Your task to perform on an android device: turn off smart reply in the gmail app Image 0: 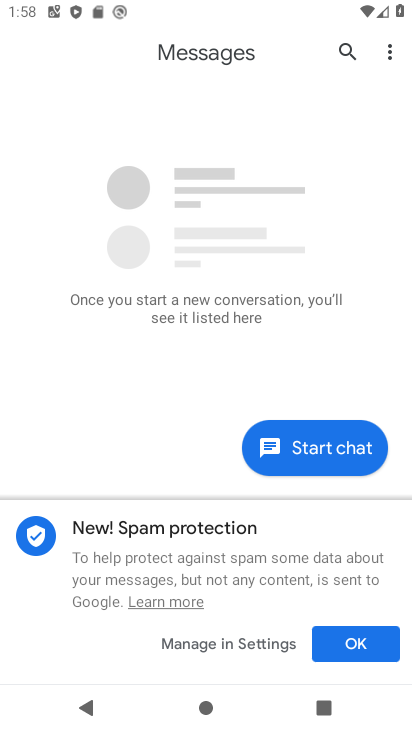
Step 0: press home button
Your task to perform on an android device: turn off smart reply in the gmail app Image 1: 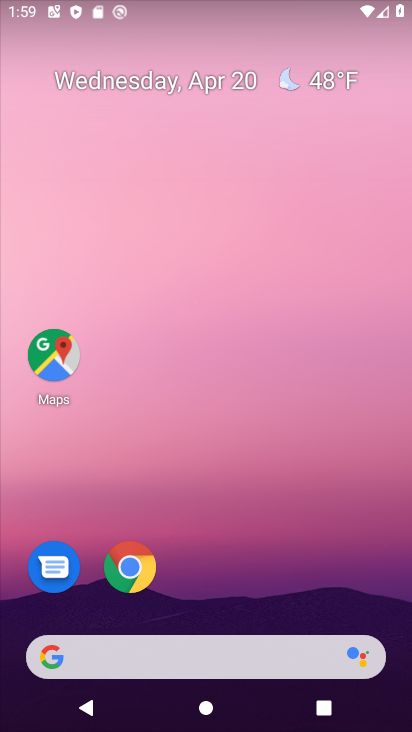
Step 1: drag from (229, 579) to (232, 135)
Your task to perform on an android device: turn off smart reply in the gmail app Image 2: 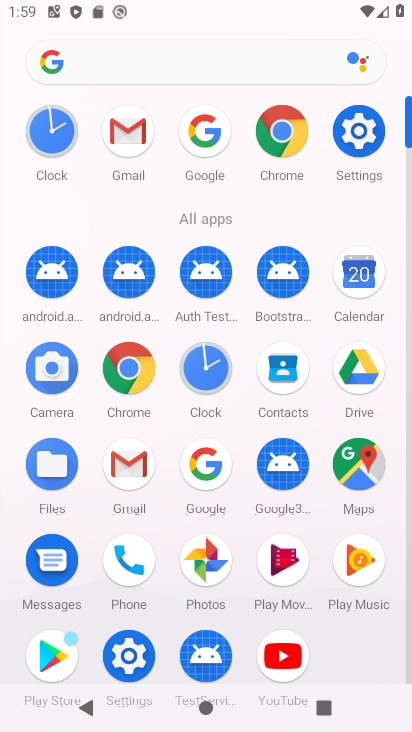
Step 2: click (123, 493)
Your task to perform on an android device: turn off smart reply in the gmail app Image 3: 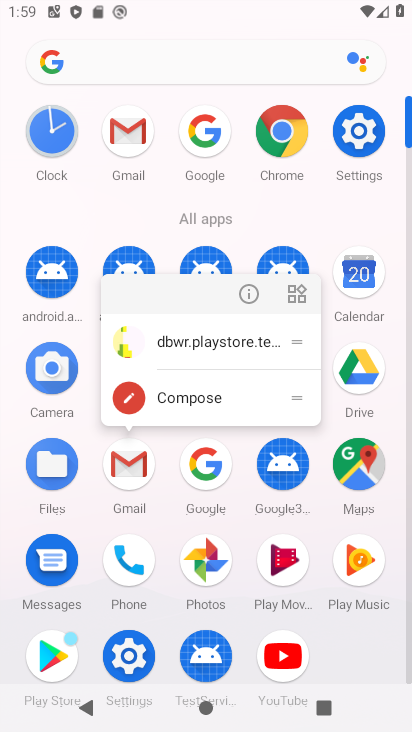
Step 3: click (124, 474)
Your task to perform on an android device: turn off smart reply in the gmail app Image 4: 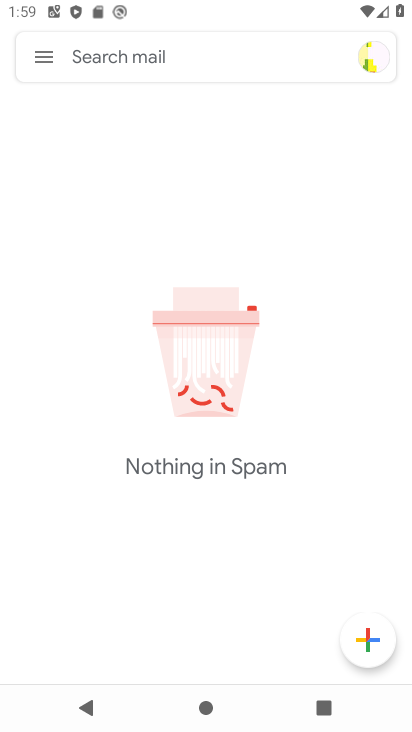
Step 4: click (46, 53)
Your task to perform on an android device: turn off smart reply in the gmail app Image 5: 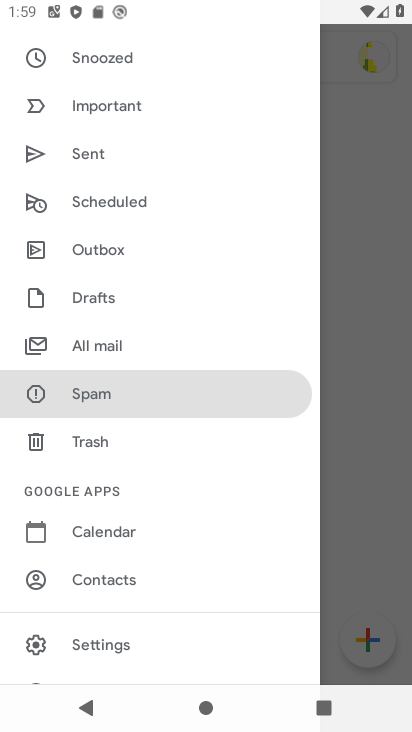
Step 5: click (121, 652)
Your task to perform on an android device: turn off smart reply in the gmail app Image 6: 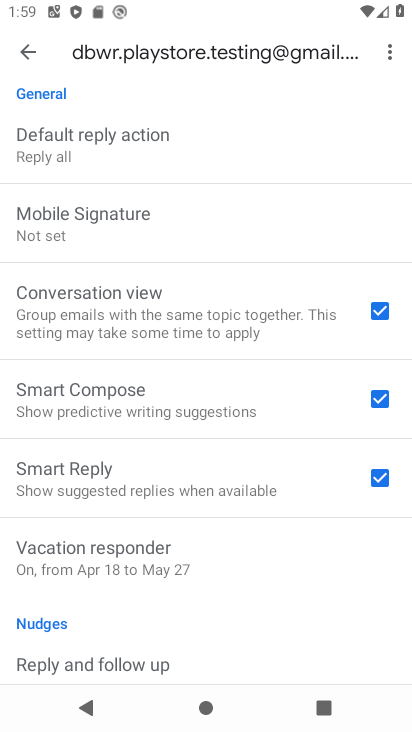
Step 6: drag from (123, 565) to (150, 405)
Your task to perform on an android device: turn off smart reply in the gmail app Image 7: 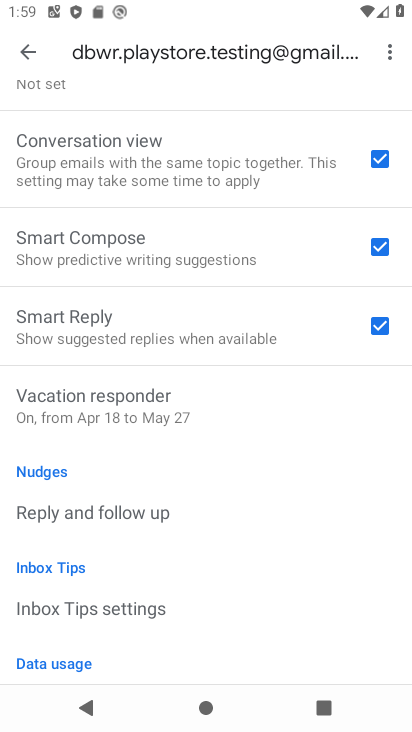
Step 7: click (383, 333)
Your task to perform on an android device: turn off smart reply in the gmail app Image 8: 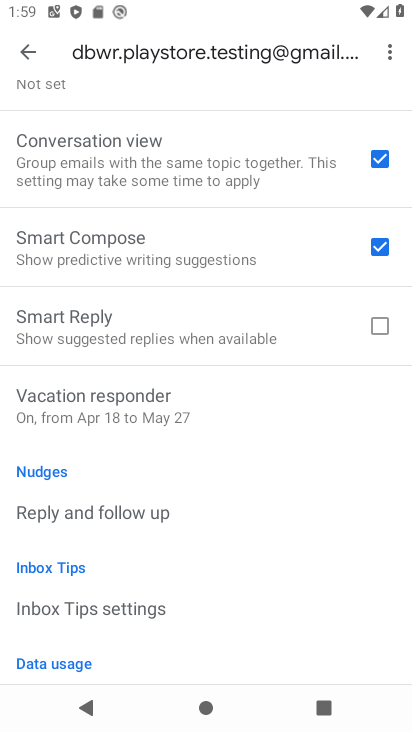
Step 8: task complete